Your task to perform on an android device: Open my contact list Image 0: 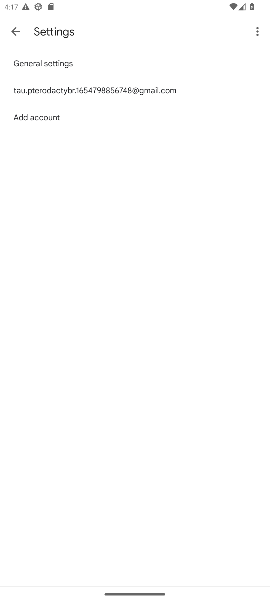
Step 0: press home button
Your task to perform on an android device: Open my contact list Image 1: 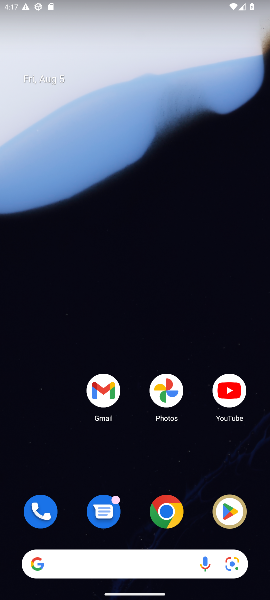
Step 1: drag from (167, 545) to (253, 65)
Your task to perform on an android device: Open my contact list Image 2: 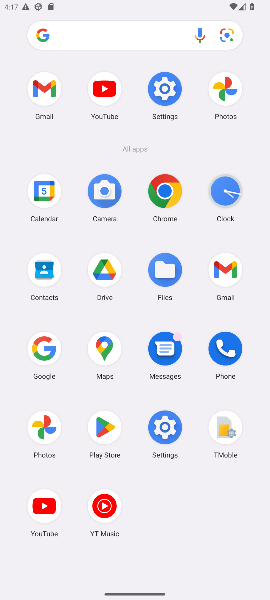
Step 2: click (49, 273)
Your task to perform on an android device: Open my contact list Image 3: 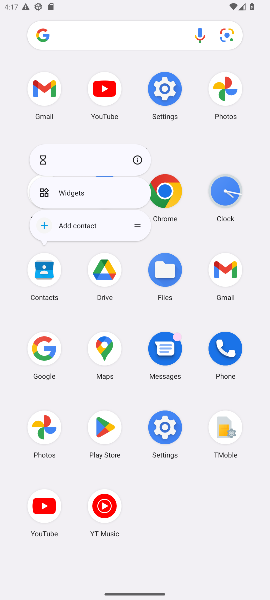
Step 3: click (44, 270)
Your task to perform on an android device: Open my contact list Image 4: 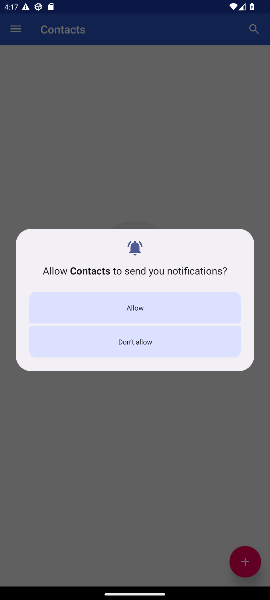
Step 4: click (134, 297)
Your task to perform on an android device: Open my contact list Image 5: 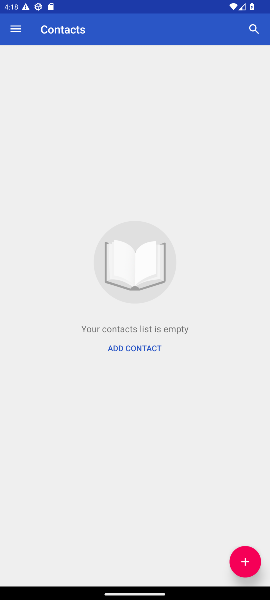
Step 5: task complete